Your task to perform on an android device: Open the calendar and show me this week's events? Image 0: 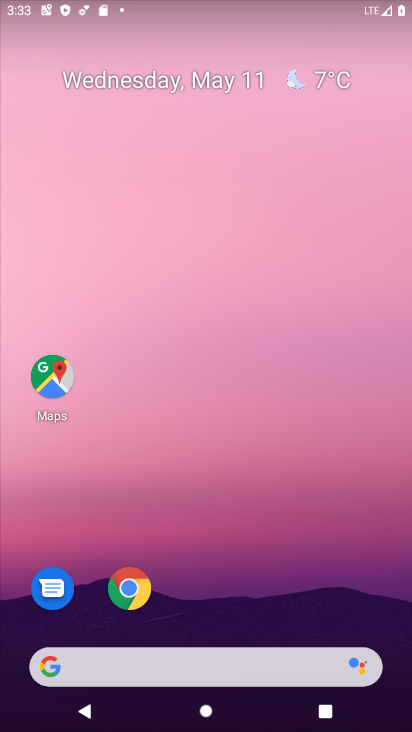
Step 0: drag from (223, 681) to (257, 286)
Your task to perform on an android device: Open the calendar and show me this week's events? Image 1: 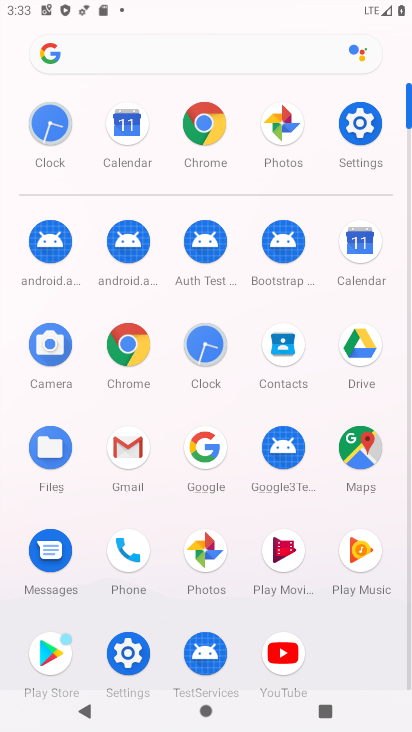
Step 1: click (361, 237)
Your task to perform on an android device: Open the calendar and show me this week's events? Image 2: 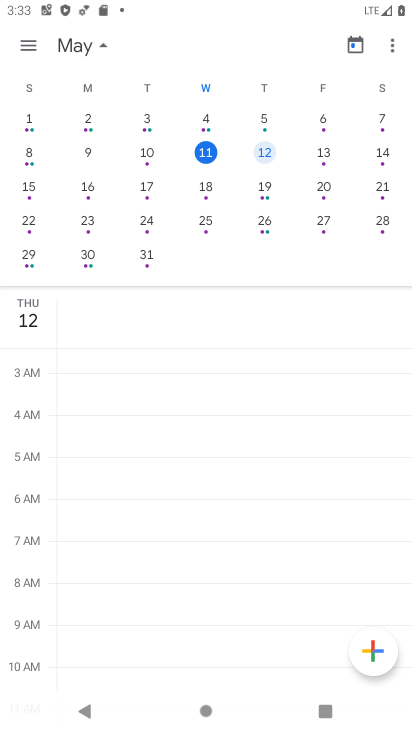
Step 2: click (30, 46)
Your task to perform on an android device: Open the calendar and show me this week's events? Image 3: 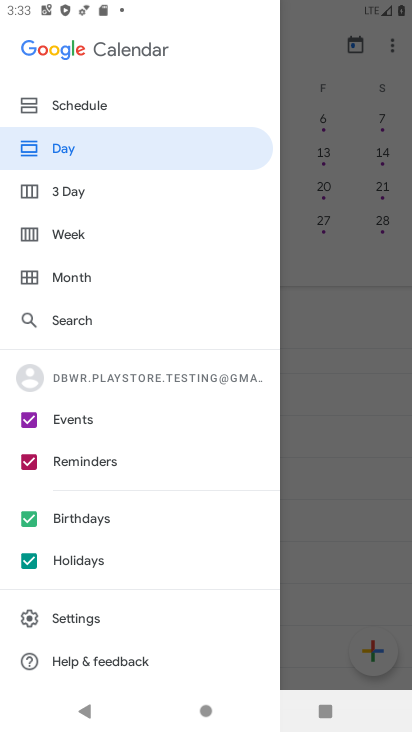
Step 3: click (60, 232)
Your task to perform on an android device: Open the calendar and show me this week's events? Image 4: 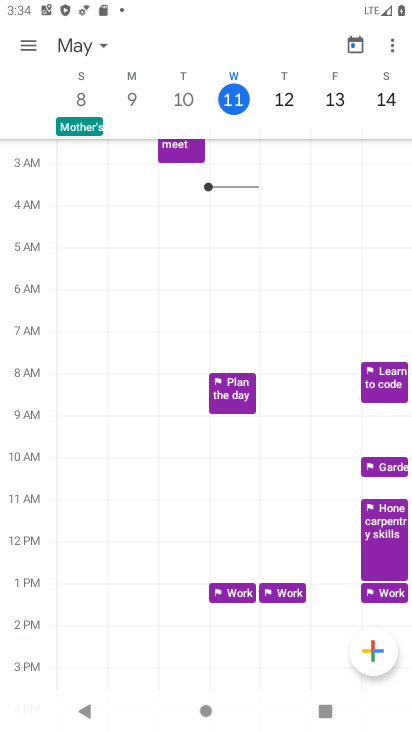
Step 4: task complete